Your task to perform on an android device: Open battery settings Image 0: 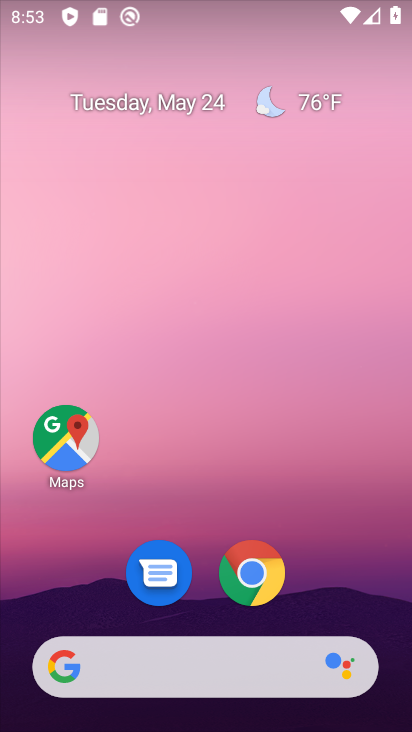
Step 0: drag from (74, 632) to (241, 177)
Your task to perform on an android device: Open battery settings Image 1: 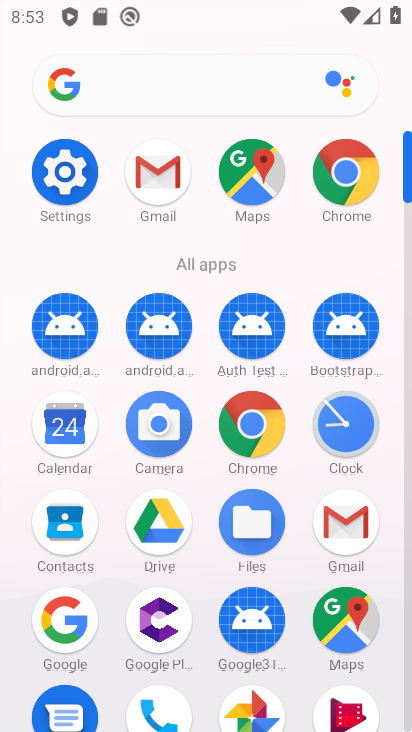
Step 1: drag from (179, 632) to (198, 554)
Your task to perform on an android device: Open battery settings Image 2: 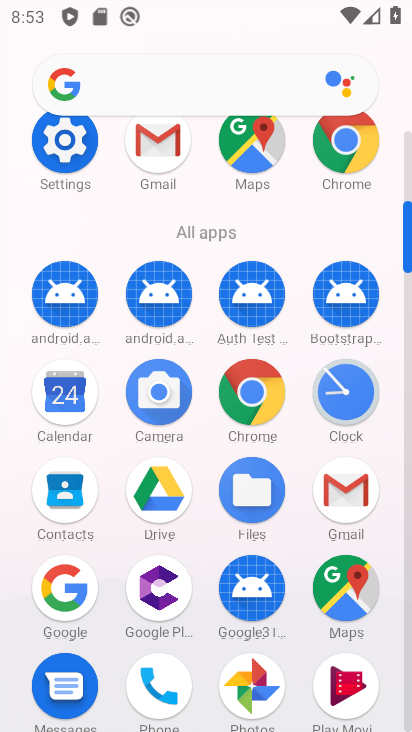
Step 2: drag from (151, 701) to (229, 416)
Your task to perform on an android device: Open battery settings Image 3: 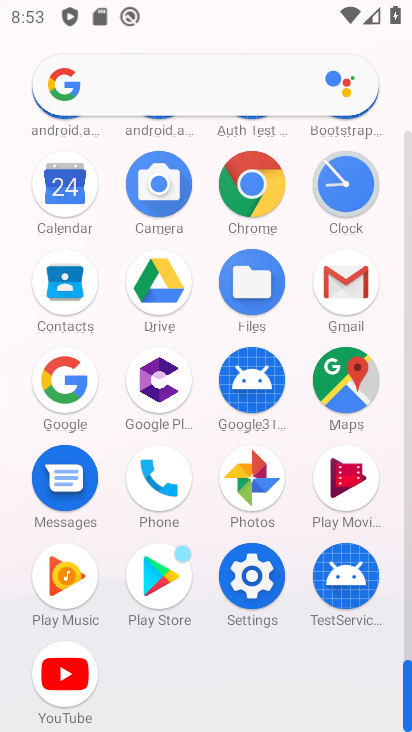
Step 3: click (264, 582)
Your task to perform on an android device: Open battery settings Image 4: 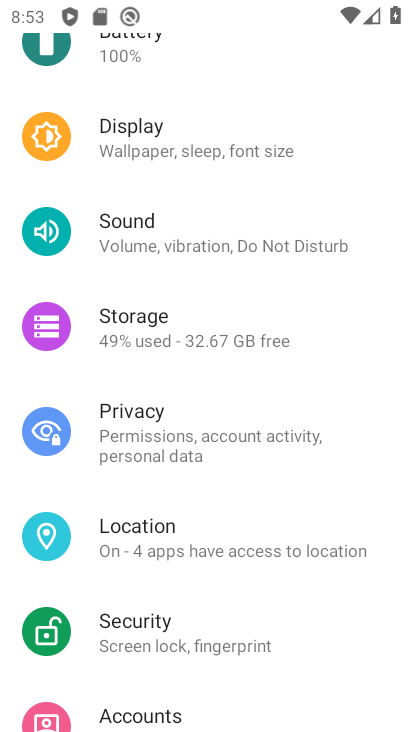
Step 4: drag from (242, 215) to (227, 464)
Your task to perform on an android device: Open battery settings Image 5: 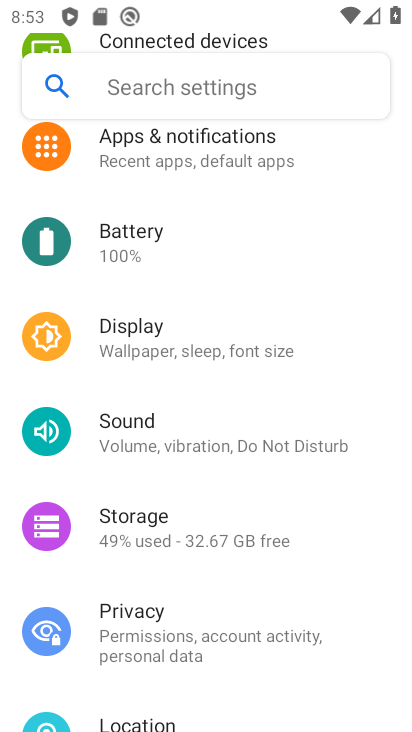
Step 5: click (201, 227)
Your task to perform on an android device: Open battery settings Image 6: 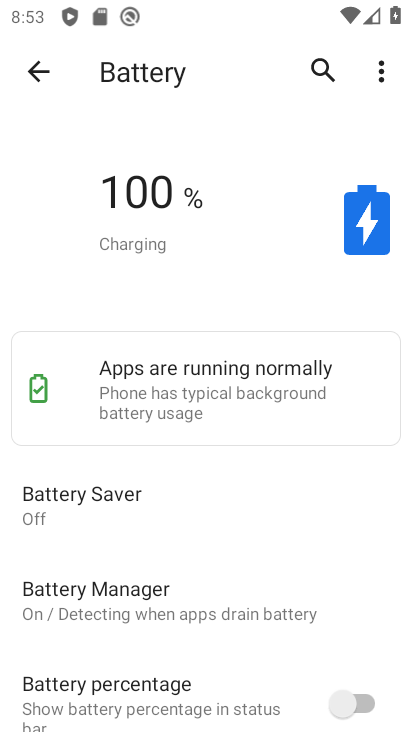
Step 6: task complete